Your task to perform on an android device: Open CNN.com Image 0: 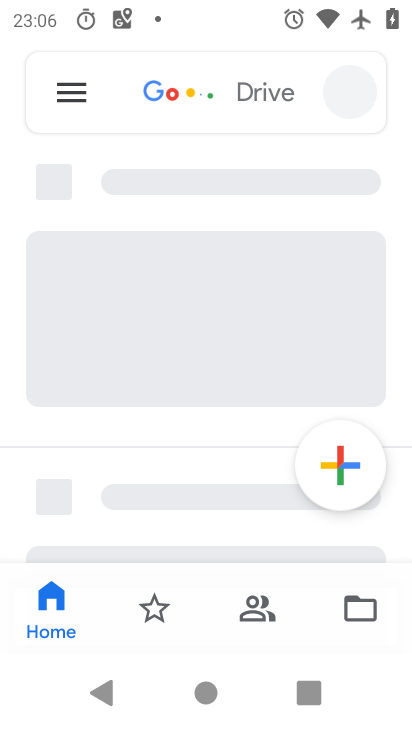
Step 0: drag from (229, 522) to (239, 207)
Your task to perform on an android device: Open CNN.com Image 1: 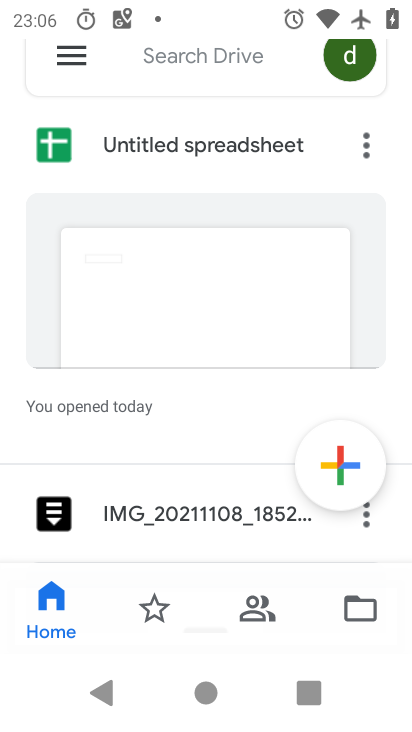
Step 1: press home button
Your task to perform on an android device: Open CNN.com Image 2: 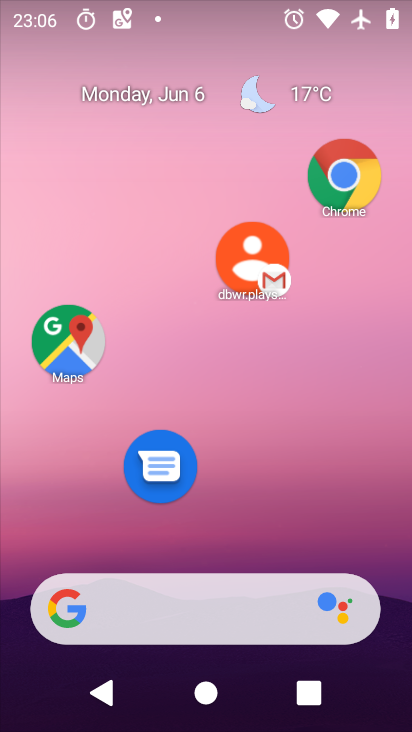
Step 2: drag from (234, 549) to (191, 191)
Your task to perform on an android device: Open CNN.com Image 3: 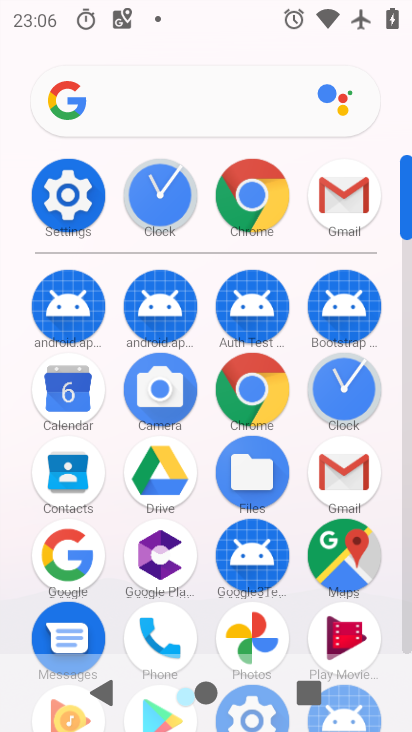
Step 3: click (181, 107)
Your task to perform on an android device: Open CNN.com Image 4: 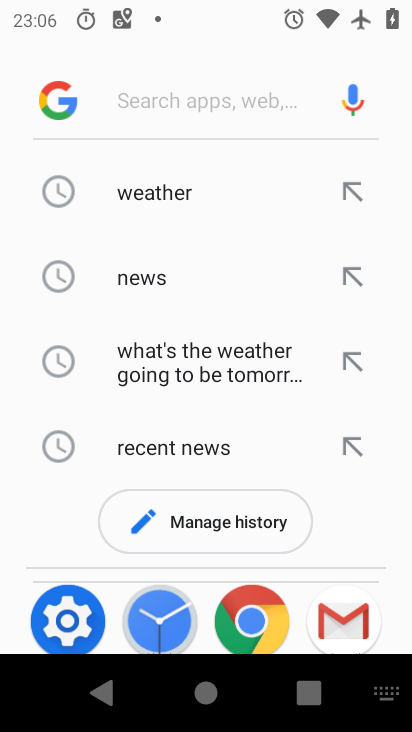
Step 4: type "CNN.com"
Your task to perform on an android device: Open CNN.com Image 5: 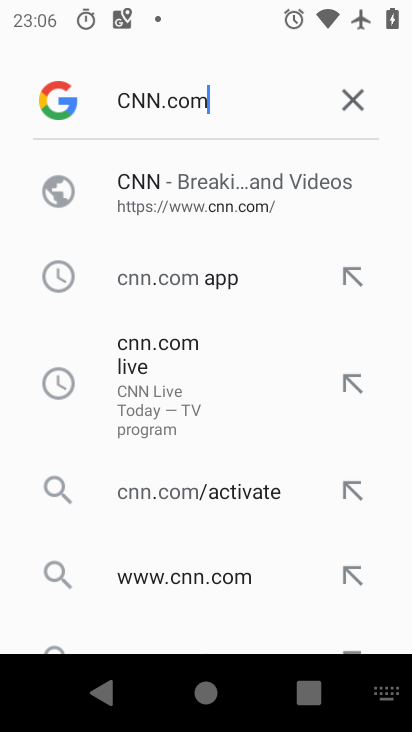
Step 5: type ""
Your task to perform on an android device: Open CNN.com Image 6: 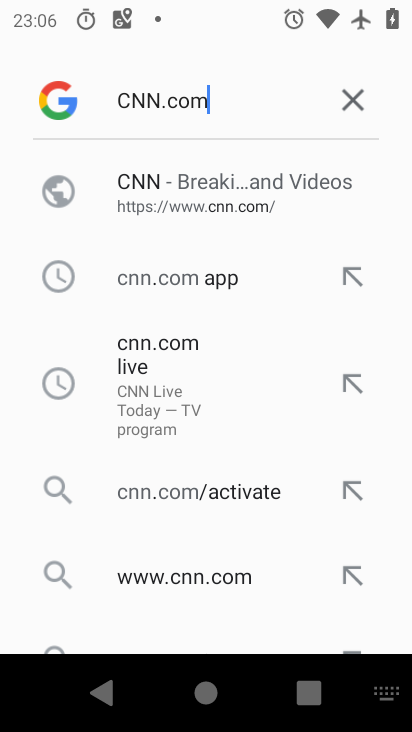
Step 6: click (188, 191)
Your task to perform on an android device: Open CNN.com Image 7: 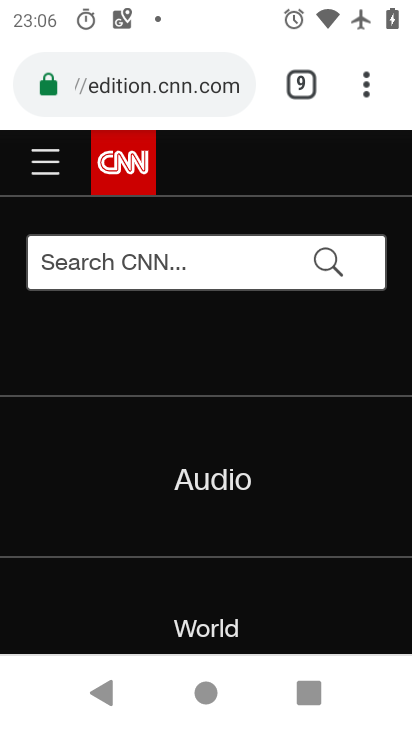
Step 7: task complete